Your task to perform on an android device: uninstall "Adobe Express: Graphic Design" Image 0: 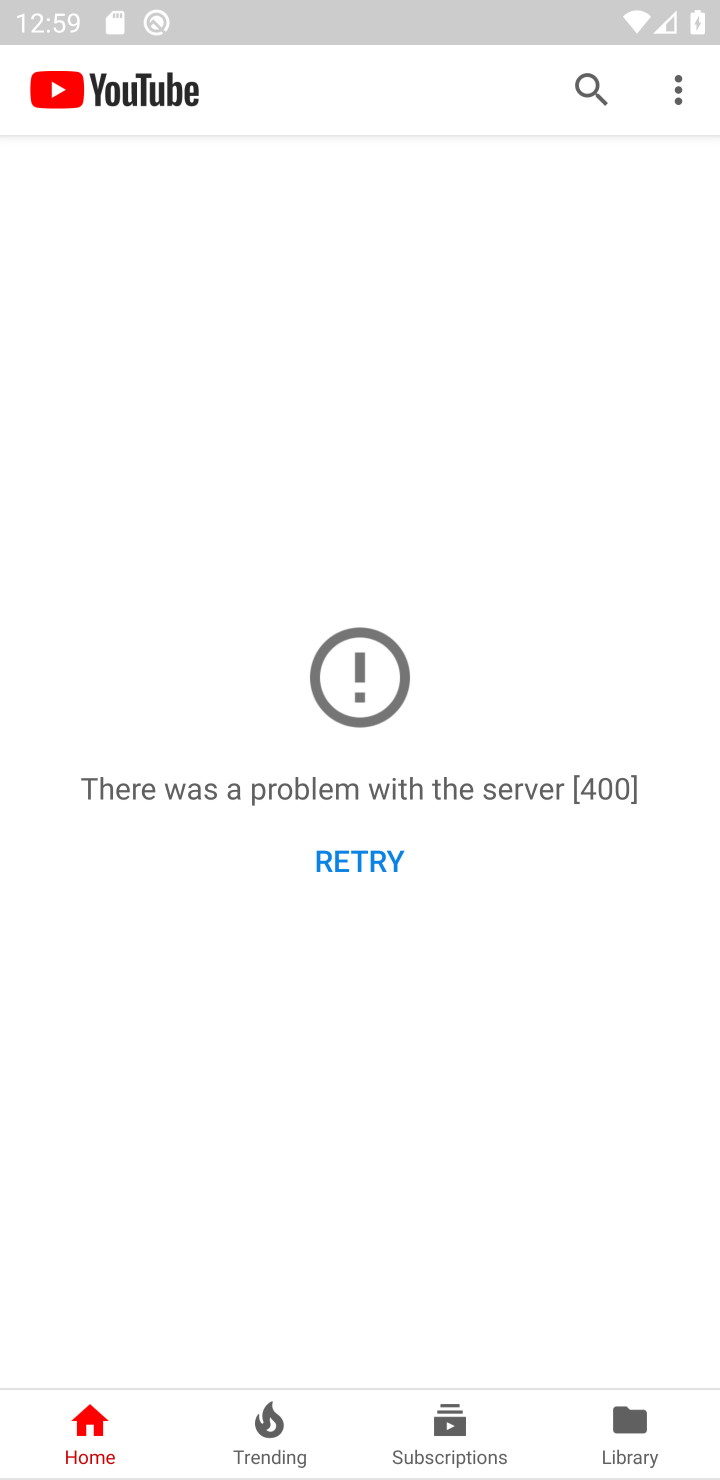
Step 0: press home button
Your task to perform on an android device: uninstall "Adobe Express: Graphic Design" Image 1: 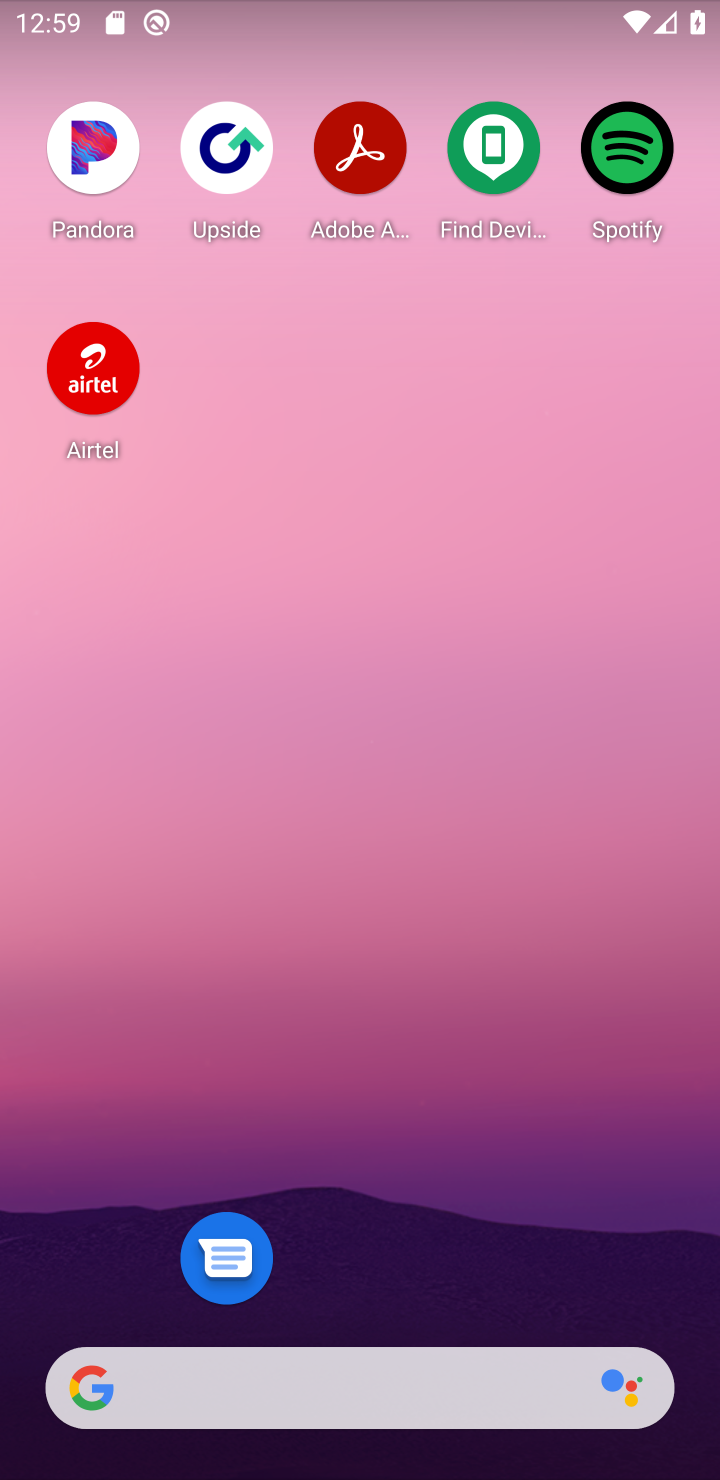
Step 1: drag from (335, 1267) to (407, 397)
Your task to perform on an android device: uninstall "Adobe Express: Graphic Design" Image 2: 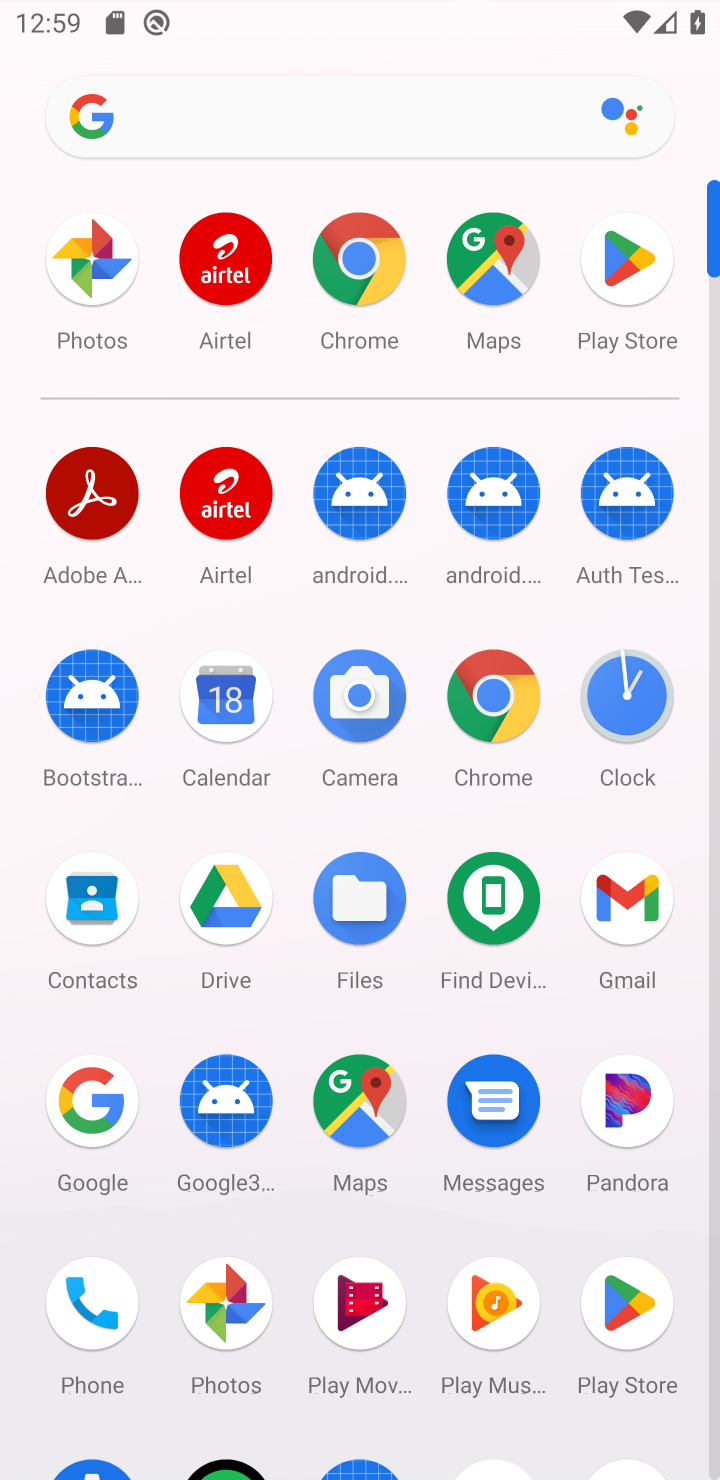
Step 2: click (607, 248)
Your task to perform on an android device: uninstall "Adobe Express: Graphic Design" Image 3: 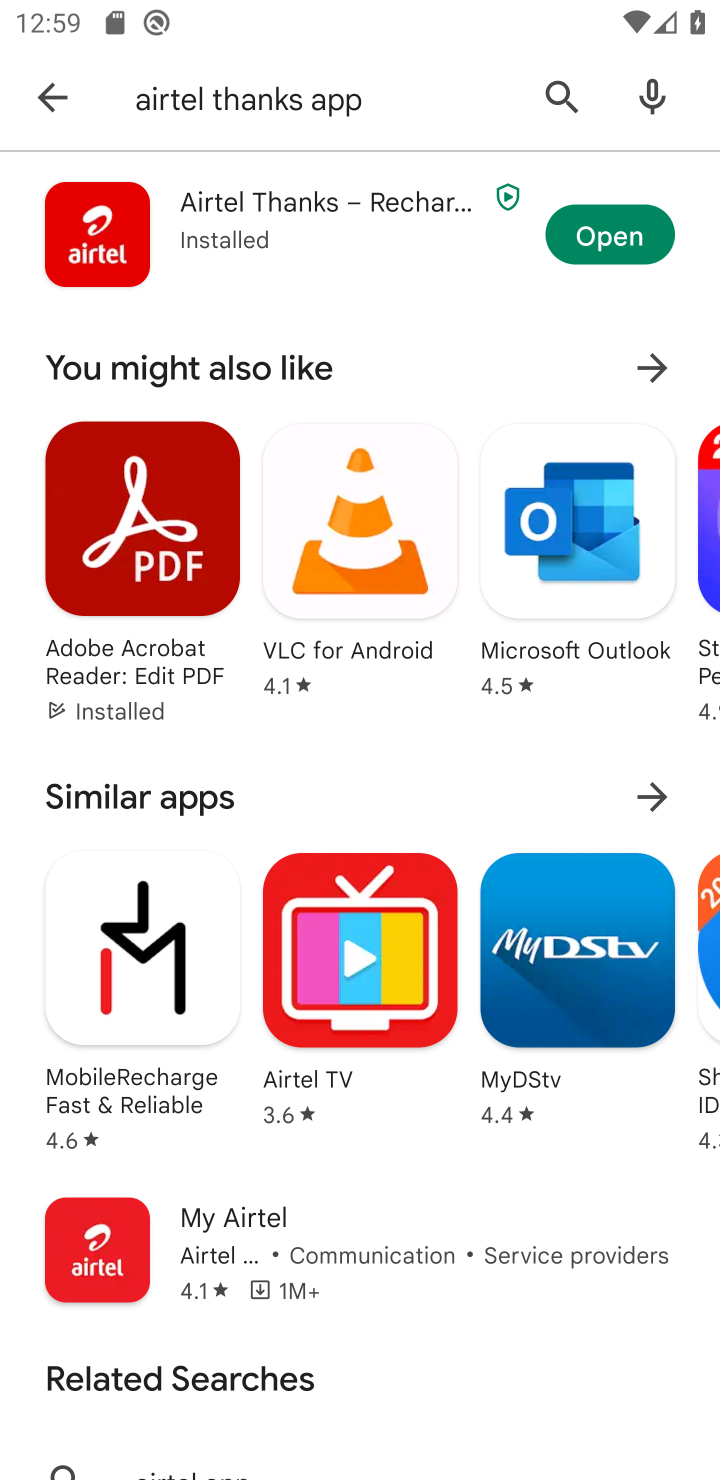
Step 3: click (16, 111)
Your task to perform on an android device: uninstall "Adobe Express: Graphic Design" Image 4: 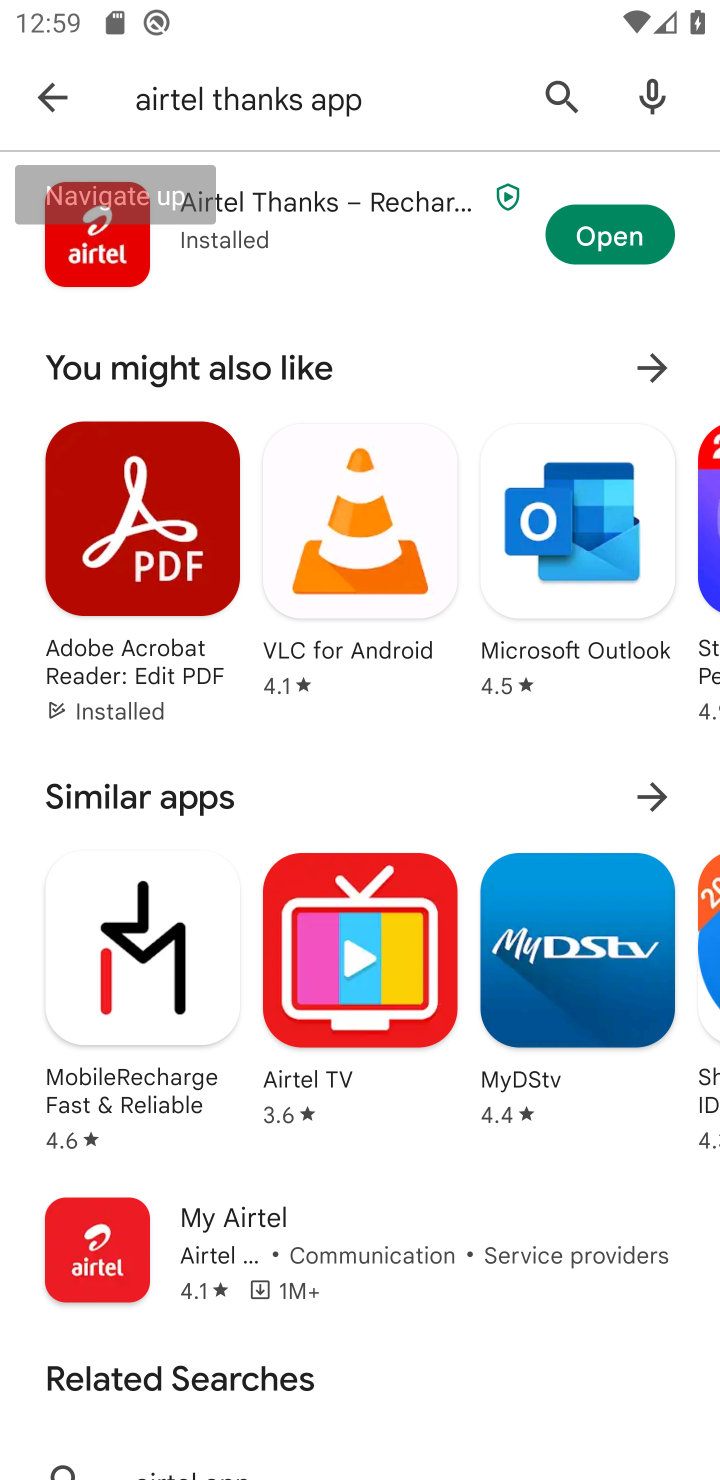
Step 4: click (42, 77)
Your task to perform on an android device: uninstall "Adobe Express: Graphic Design" Image 5: 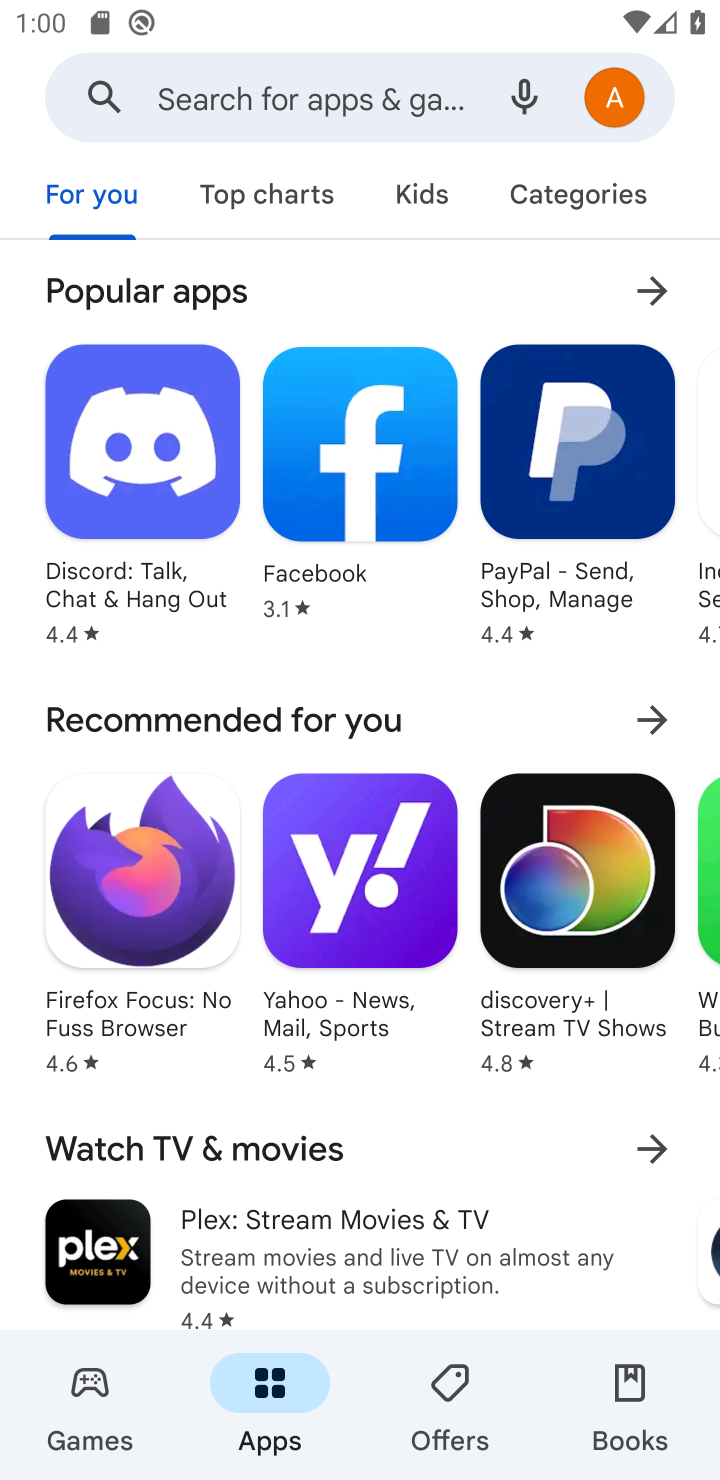
Step 5: click (380, 84)
Your task to perform on an android device: uninstall "Adobe Express: Graphic Design" Image 6: 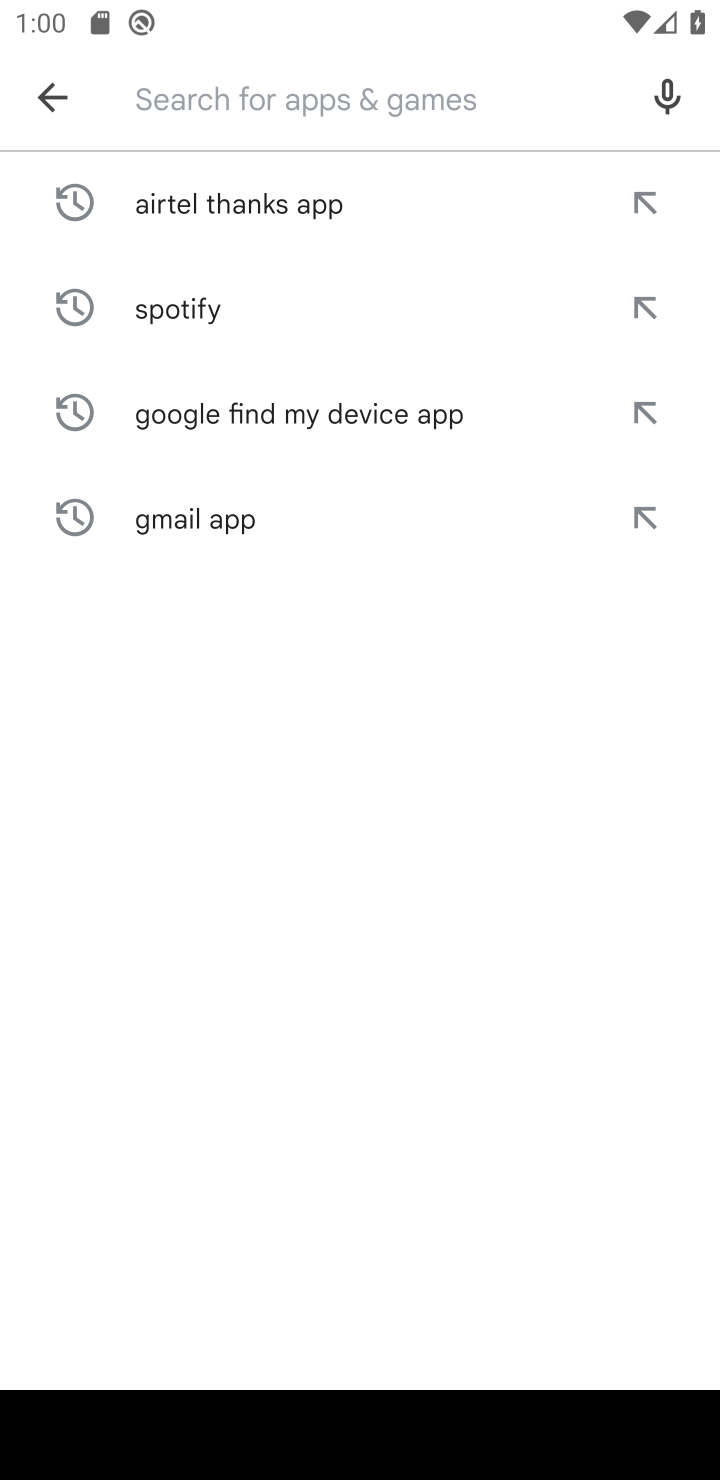
Step 6: type "Adobe Express: Graphic Design "
Your task to perform on an android device: uninstall "Adobe Express: Graphic Design" Image 7: 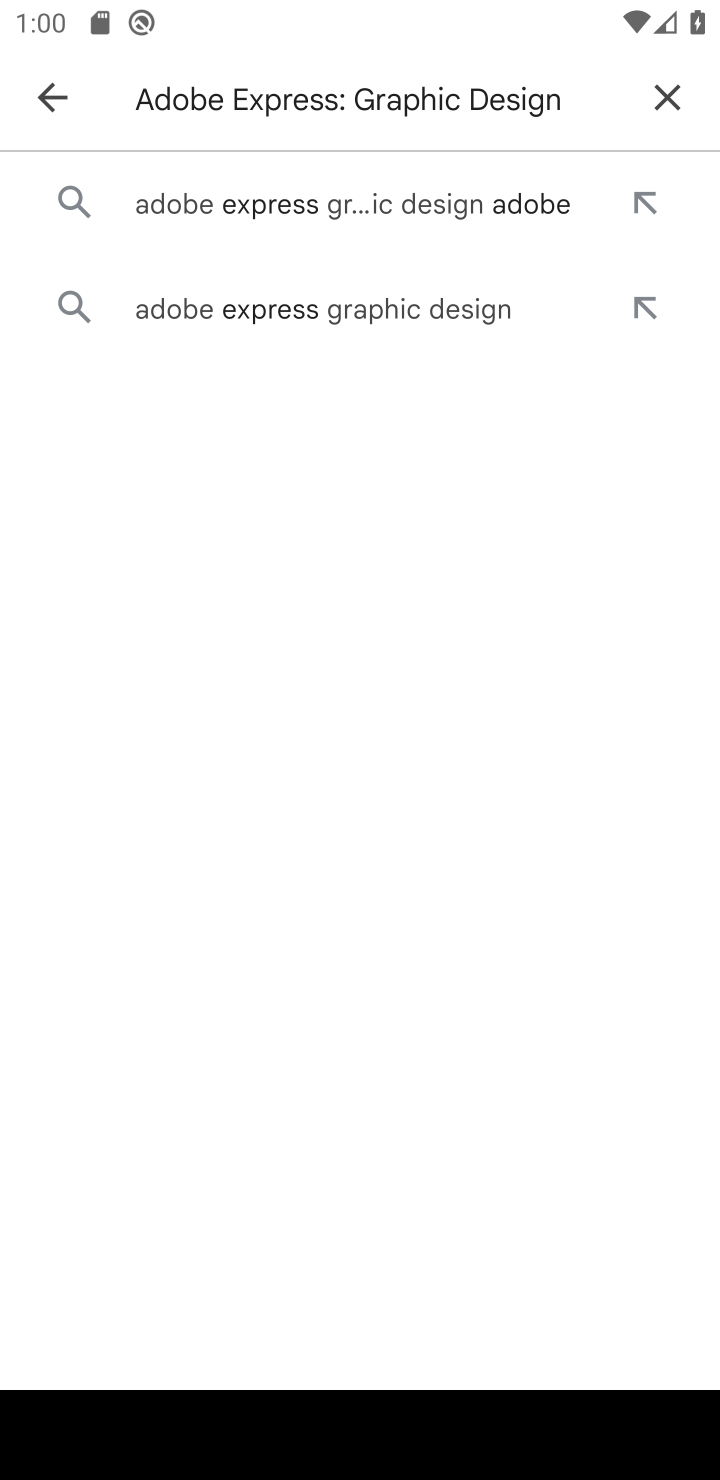
Step 7: click (440, 213)
Your task to perform on an android device: uninstall "Adobe Express: Graphic Design" Image 8: 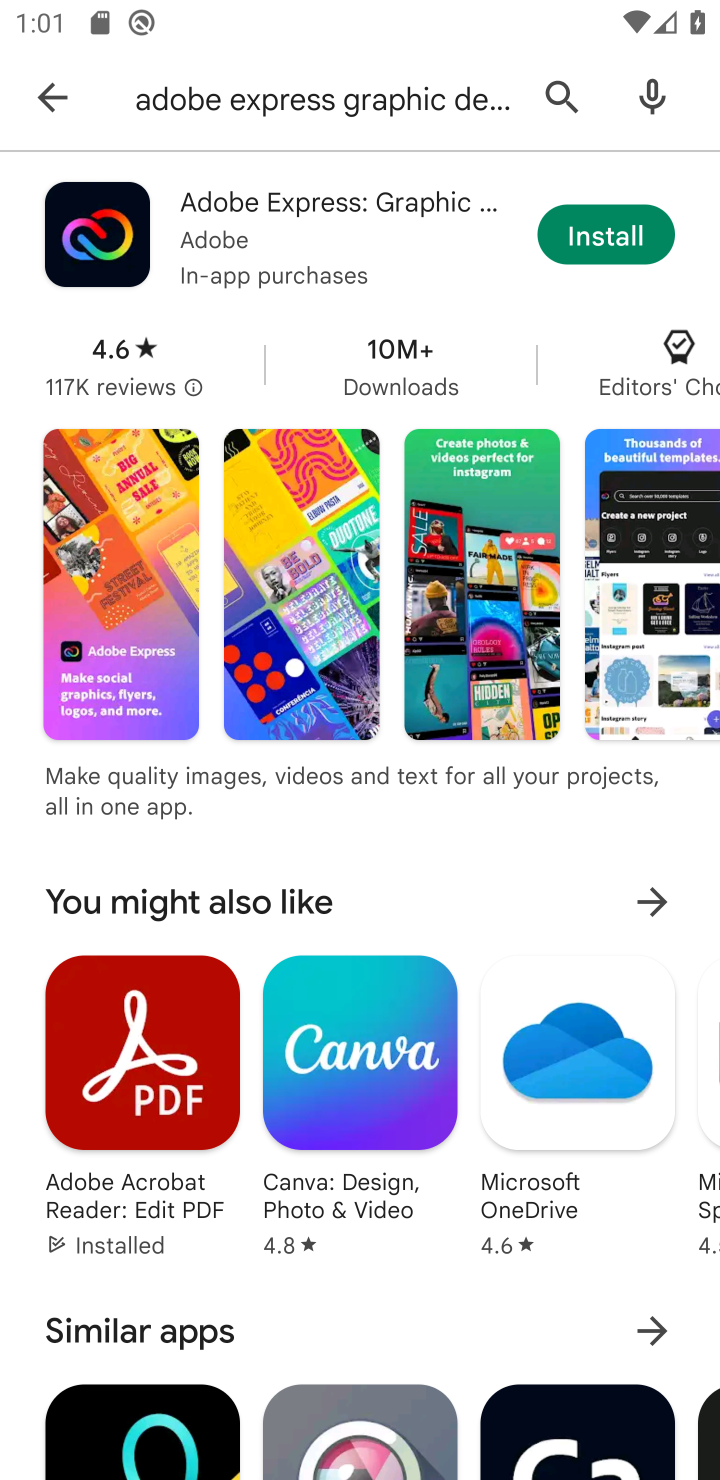
Step 8: task complete